Your task to perform on an android device: change notification settings in the gmail app Image 0: 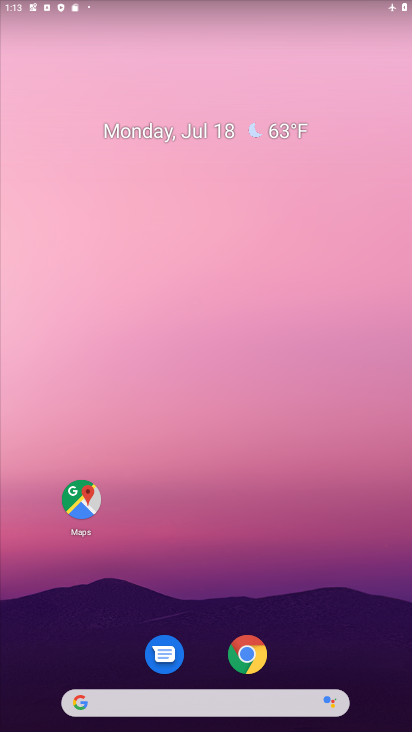
Step 0: drag from (222, 611) to (276, 271)
Your task to perform on an android device: change notification settings in the gmail app Image 1: 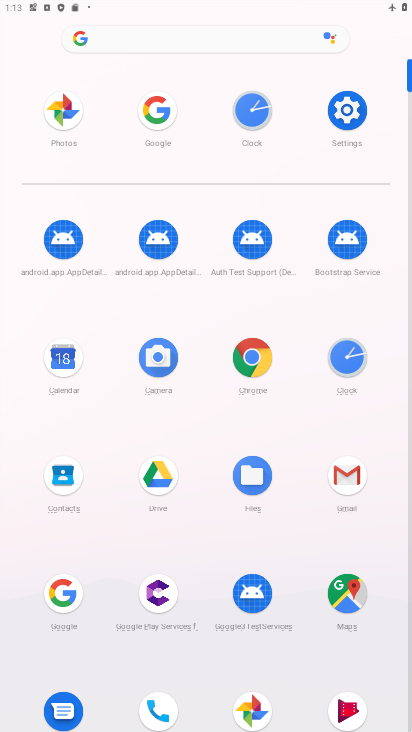
Step 1: click (333, 484)
Your task to perform on an android device: change notification settings in the gmail app Image 2: 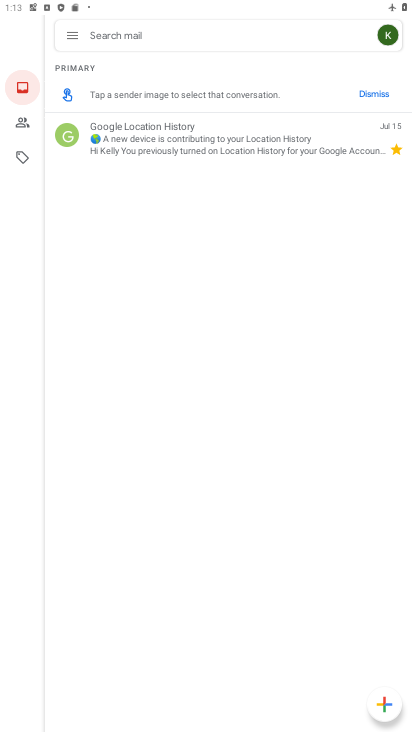
Step 2: click (72, 35)
Your task to perform on an android device: change notification settings in the gmail app Image 3: 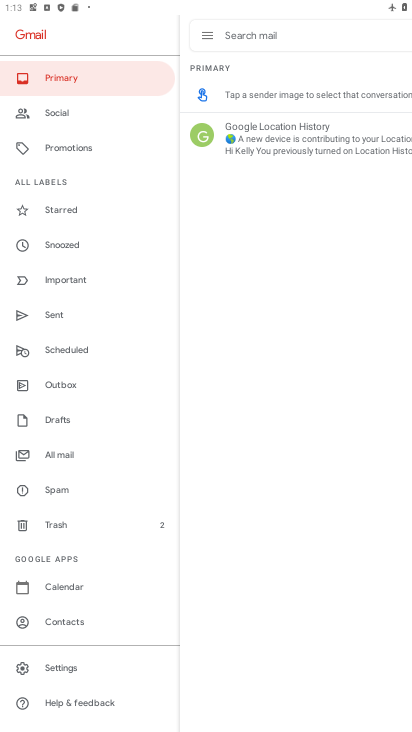
Step 3: click (74, 661)
Your task to perform on an android device: change notification settings in the gmail app Image 4: 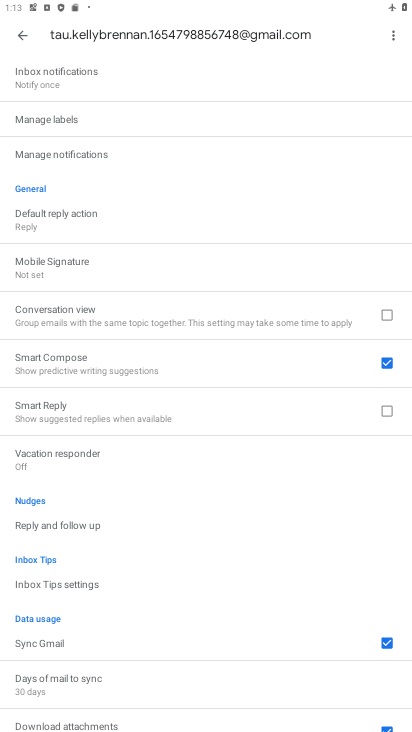
Step 4: click (112, 276)
Your task to perform on an android device: change notification settings in the gmail app Image 5: 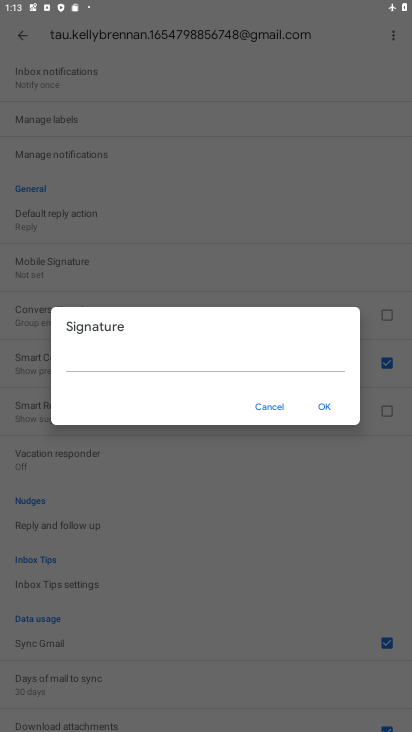
Step 5: click (268, 408)
Your task to perform on an android device: change notification settings in the gmail app Image 6: 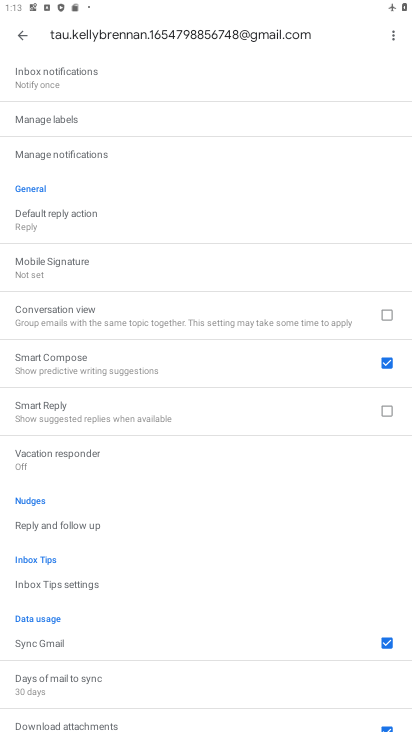
Step 6: click (107, 150)
Your task to perform on an android device: change notification settings in the gmail app Image 7: 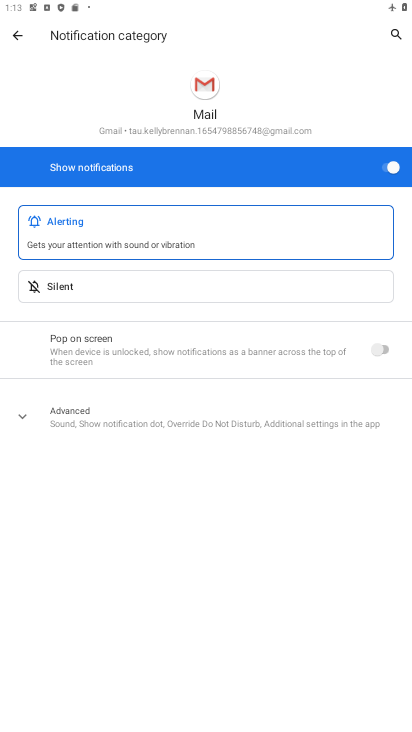
Step 7: click (378, 186)
Your task to perform on an android device: change notification settings in the gmail app Image 8: 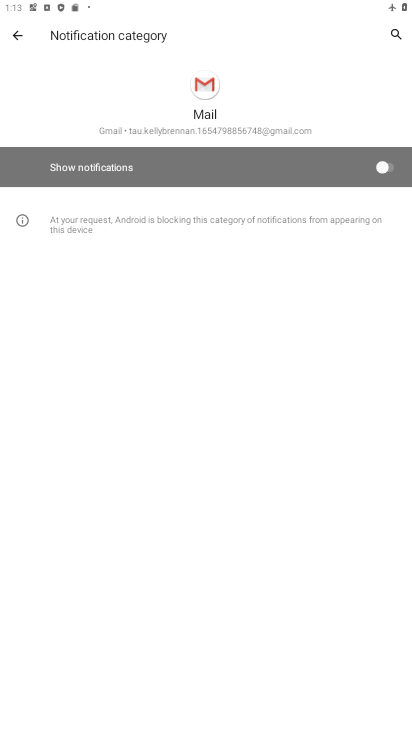
Step 8: task complete